Your task to perform on an android device: set default search engine in the chrome app Image 0: 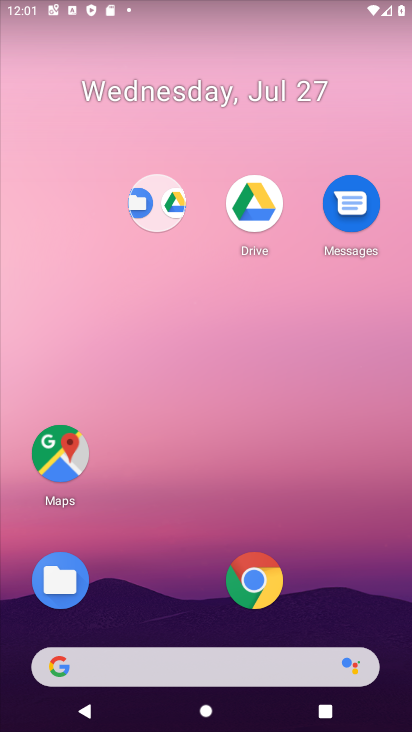
Step 0: click (267, 567)
Your task to perform on an android device: set default search engine in the chrome app Image 1: 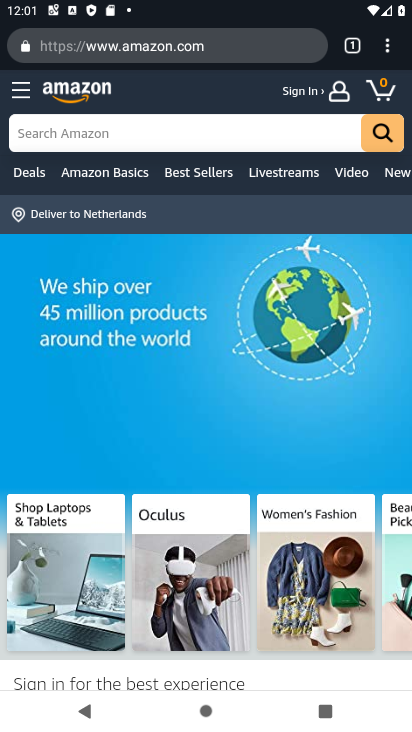
Step 1: click (396, 53)
Your task to perform on an android device: set default search engine in the chrome app Image 2: 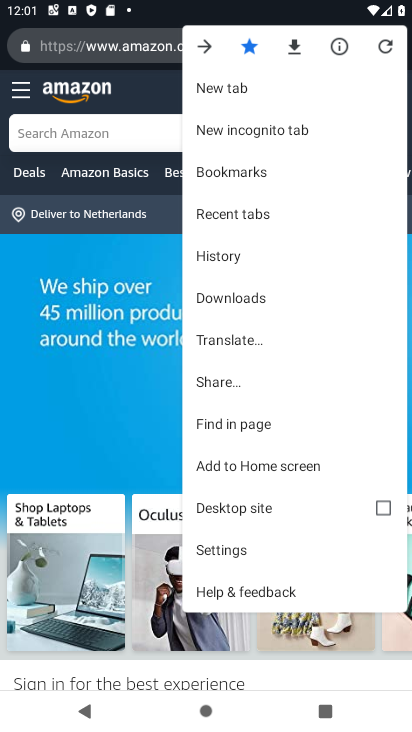
Step 2: click (208, 537)
Your task to perform on an android device: set default search engine in the chrome app Image 3: 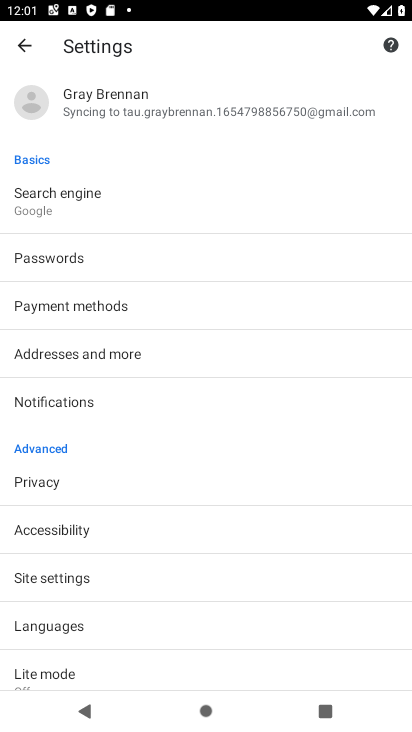
Step 3: click (72, 200)
Your task to perform on an android device: set default search engine in the chrome app Image 4: 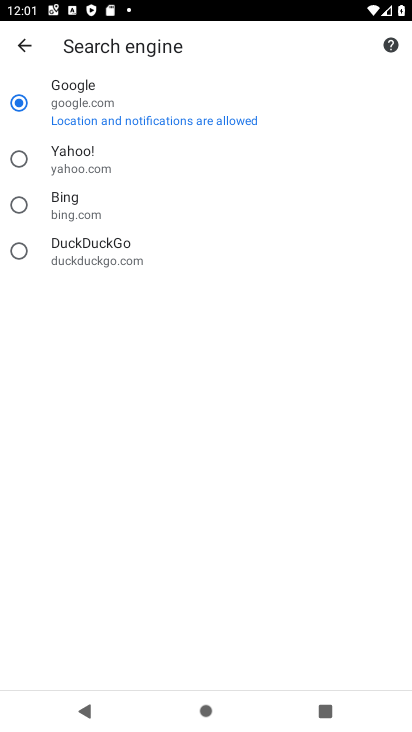
Step 4: click (72, 200)
Your task to perform on an android device: set default search engine in the chrome app Image 5: 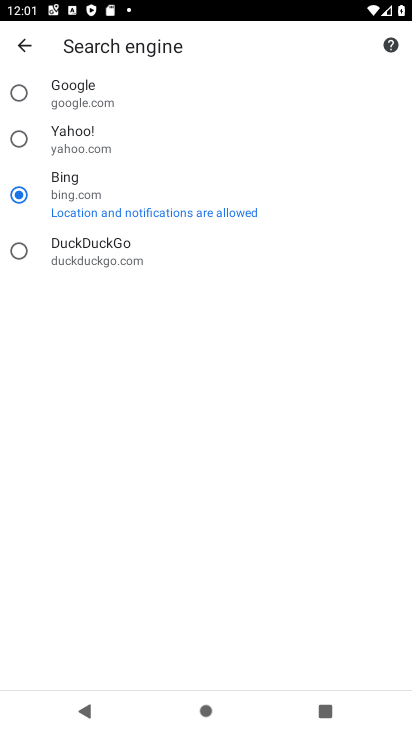
Step 5: task complete